Your task to perform on an android device: Search for Mexican restaurants on Maps Image 0: 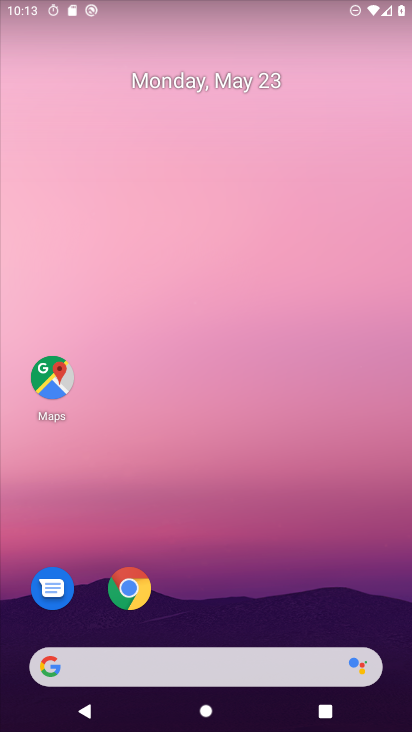
Step 0: click (56, 356)
Your task to perform on an android device: Search for Mexican restaurants on Maps Image 1: 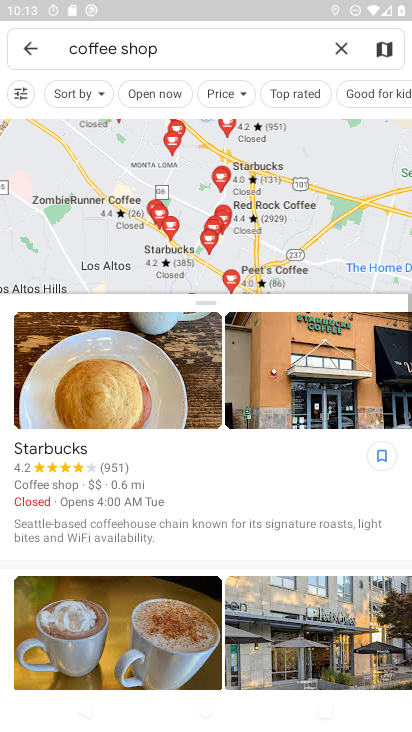
Step 1: click (338, 44)
Your task to perform on an android device: Search for Mexican restaurants on Maps Image 2: 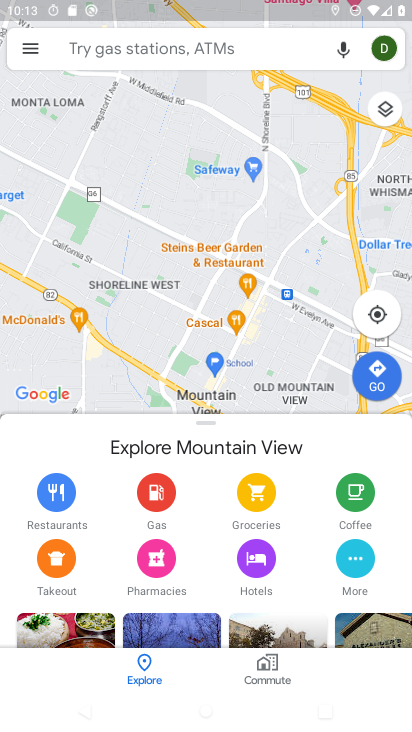
Step 2: click (70, 46)
Your task to perform on an android device: Search for Mexican restaurants on Maps Image 3: 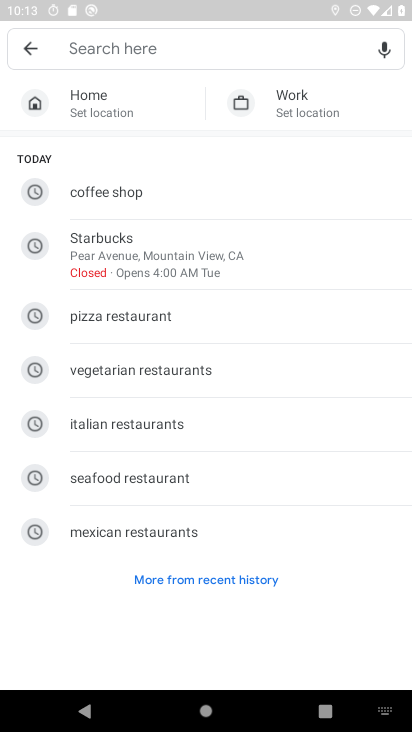
Step 3: type "Mexican restaurants"
Your task to perform on an android device: Search for Mexican restaurants on Maps Image 4: 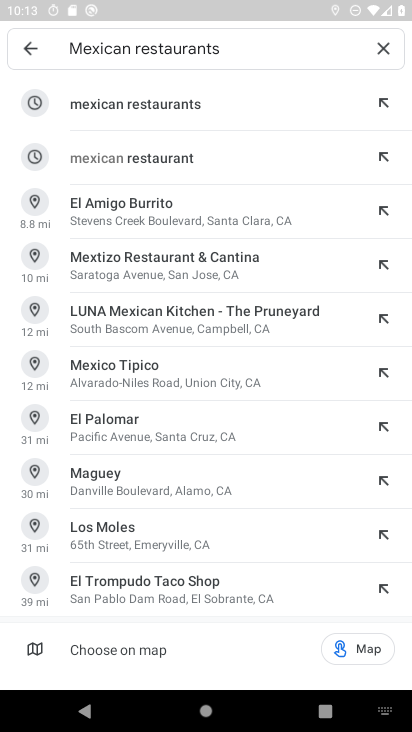
Step 4: click (127, 98)
Your task to perform on an android device: Search for Mexican restaurants on Maps Image 5: 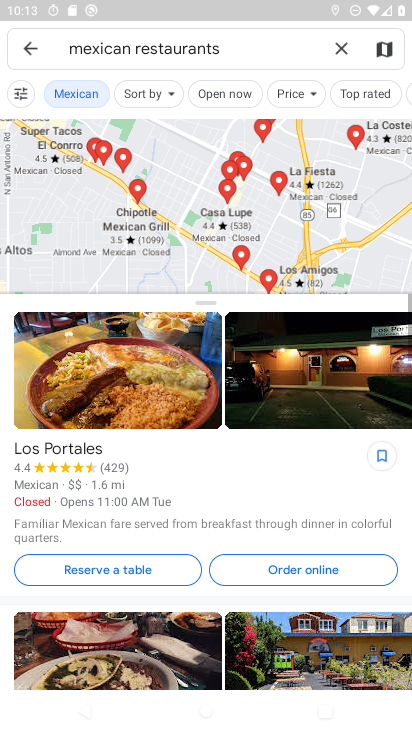
Step 5: task complete